Your task to perform on an android device: toggle pop-ups in chrome Image 0: 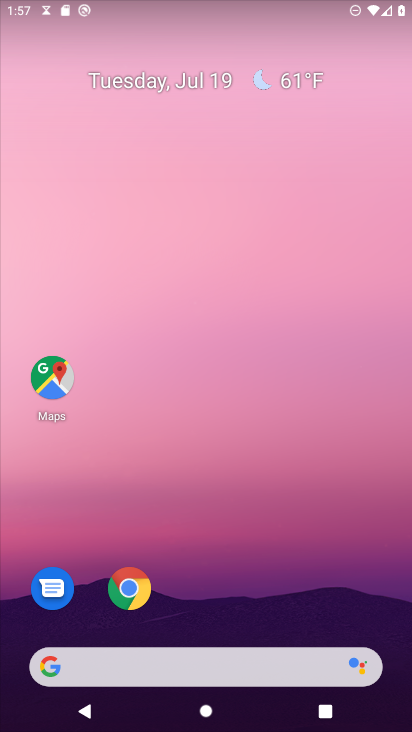
Step 0: click (144, 577)
Your task to perform on an android device: toggle pop-ups in chrome Image 1: 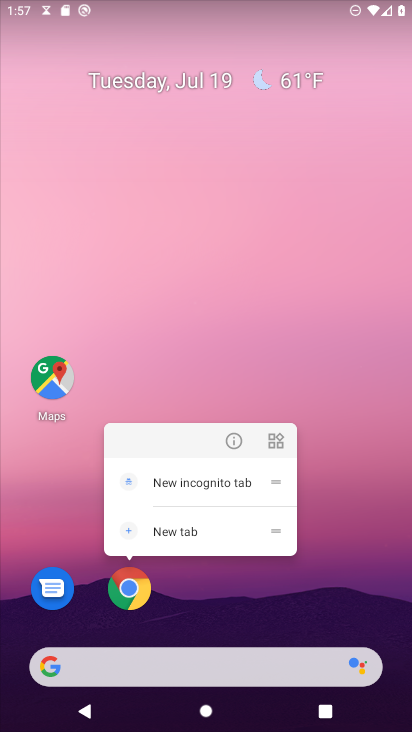
Step 1: click (131, 589)
Your task to perform on an android device: toggle pop-ups in chrome Image 2: 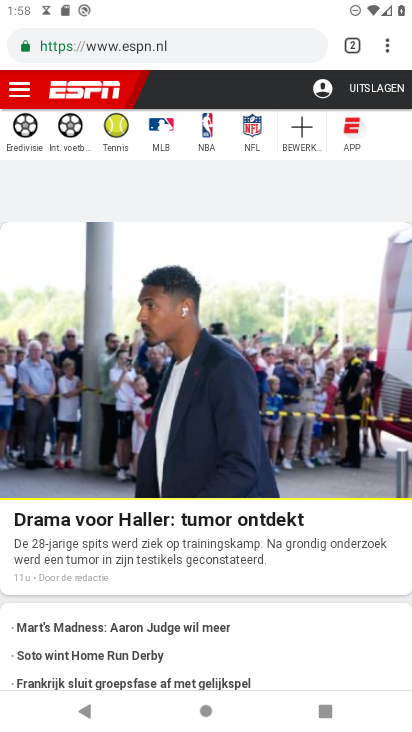
Step 2: click (380, 54)
Your task to perform on an android device: toggle pop-ups in chrome Image 3: 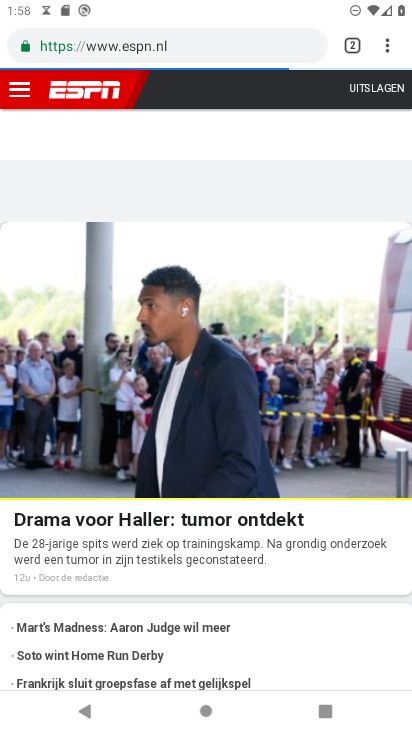
Step 3: click (391, 50)
Your task to perform on an android device: toggle pop-ups in chrome Image 4: 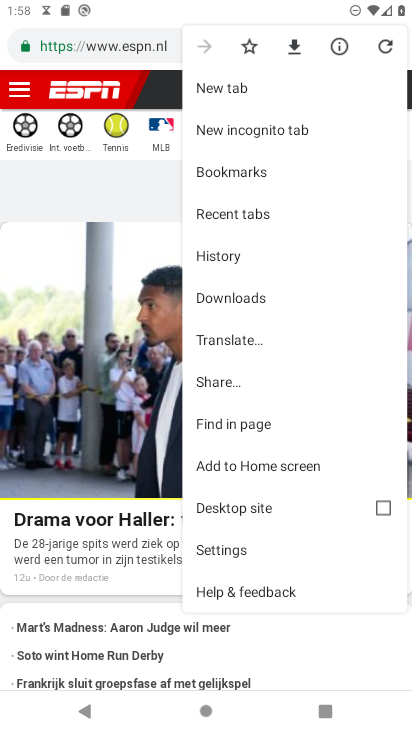
Step 4: click (248, 550)
Your task to perform on an android device: toggle pop-ups in chrome Image 5: 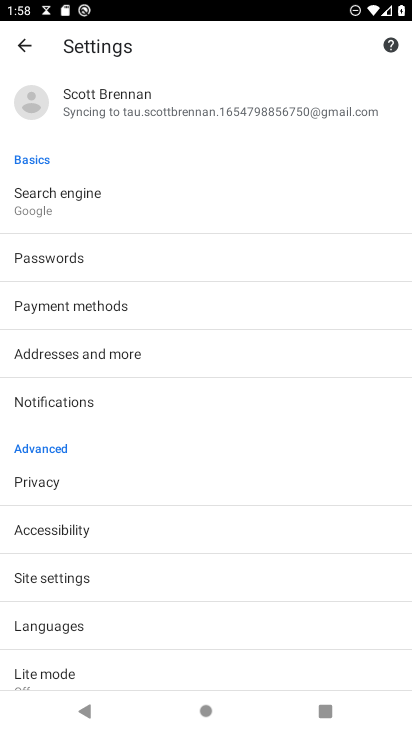
Step 5: drag from (105, 580) to (139, 473)
Your task to perform on an android device: toggle pop-ups in chrome Image 6: 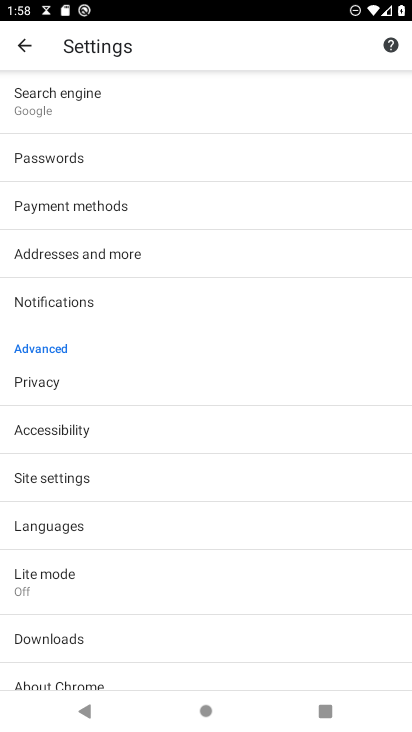
Step 6: click (80, 482)
Your task to perform on an android device: toggle pop-ups in chrome Image 7: 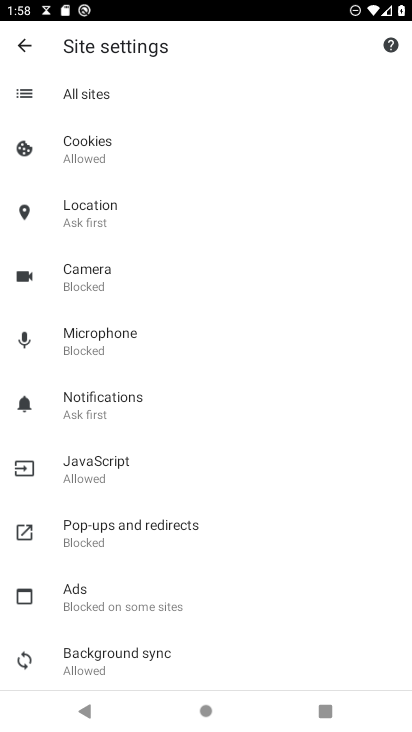
Step 7: click (78, 544)
Your task to perform on an android device: toggle pop-ups in chrome Image 8: 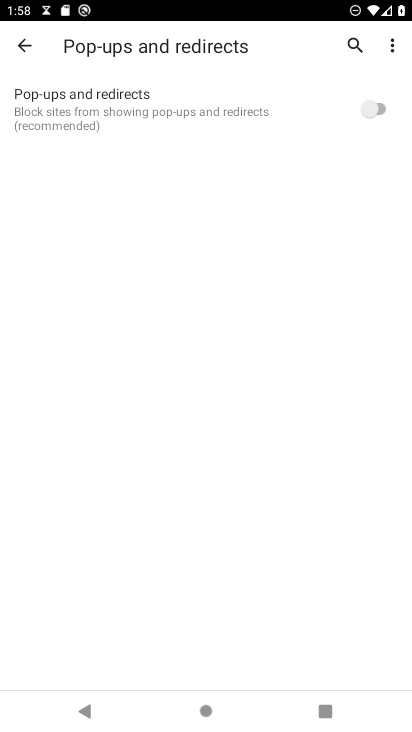
Step 8: click (378, 104)
Your task to perform on an android device: toggle pop-ups in chrome Image 9: 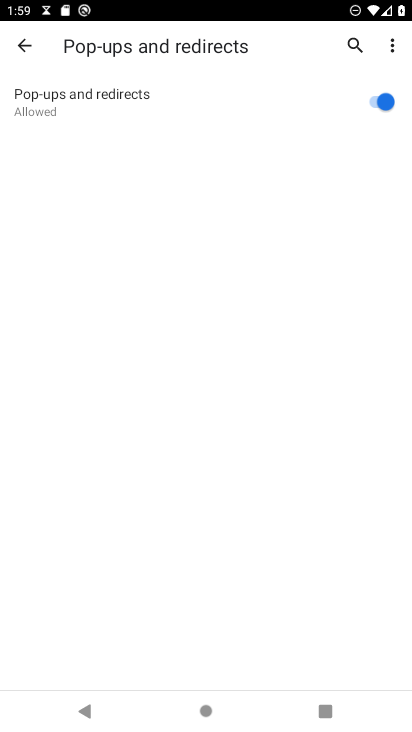
Step 9: task complete